Your task to perform on an android device: stop showing notifications on the lock screen Image 0: 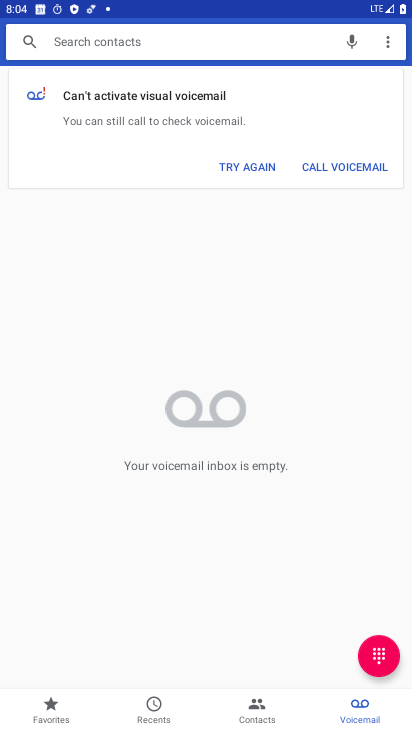
Step 0: press home button
Your task to perform on an android device: stop showing notifications on the lock screen Image 1: 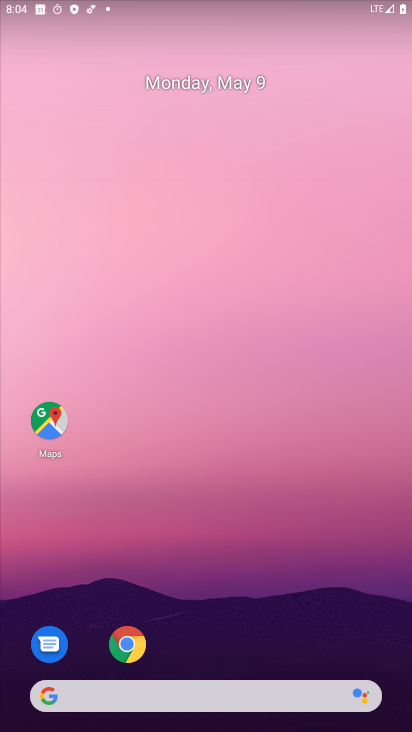
Step 1: drag from (193, 669) to (205, 327)
Your task to perform on an android device: stop showing notifications on the lock screen Image 2: 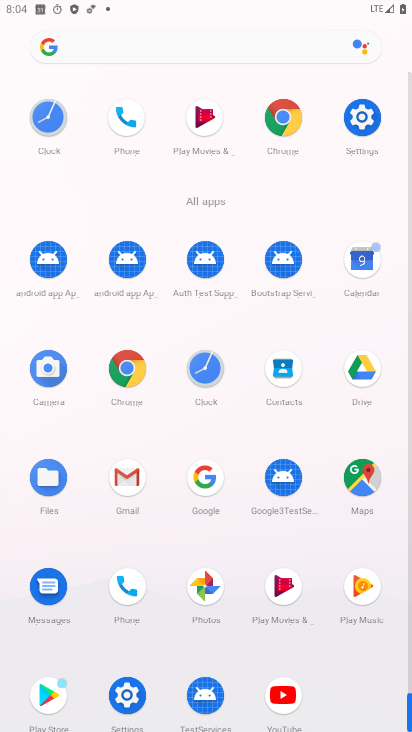
Step 2: click (130, 696)
Your task to perform on an android device: stop showing notifications on the lock screen Image 3: 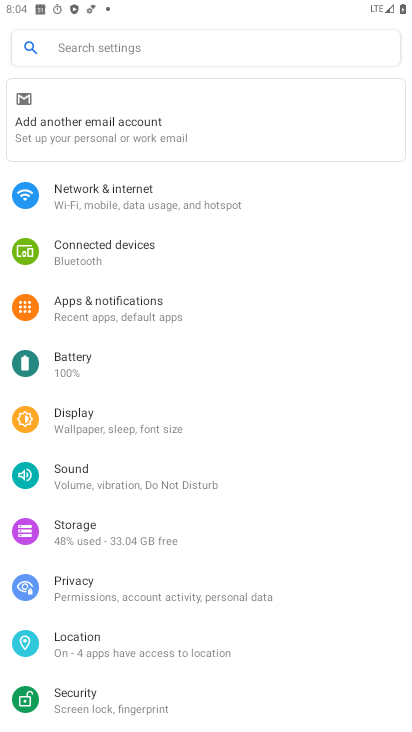
Step 3: click (152, 310)
Your task to perform on an android device: stop showing notifications on the lock screen Image 4: 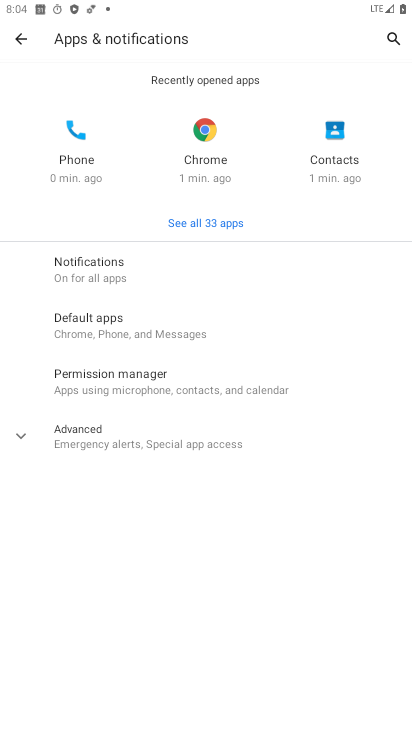
Step 4: click (99, 272)
Your task to perform on an android device: stop showing notifications on the lock screen Image 5: 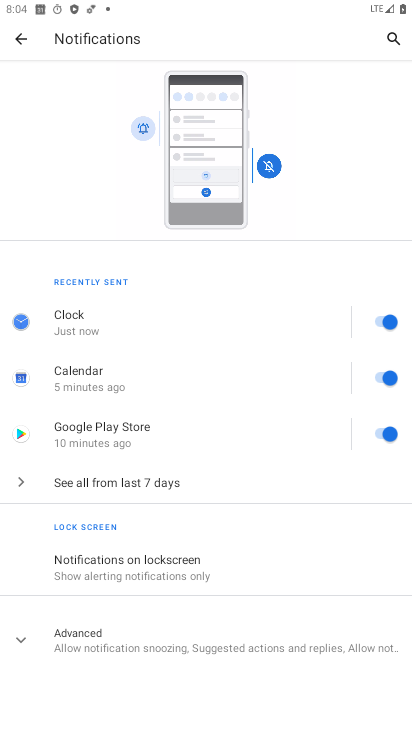
Step 5: click (121, 575)
Your task to perform on an android device: stop showing notifications on the lock screen Image 6: 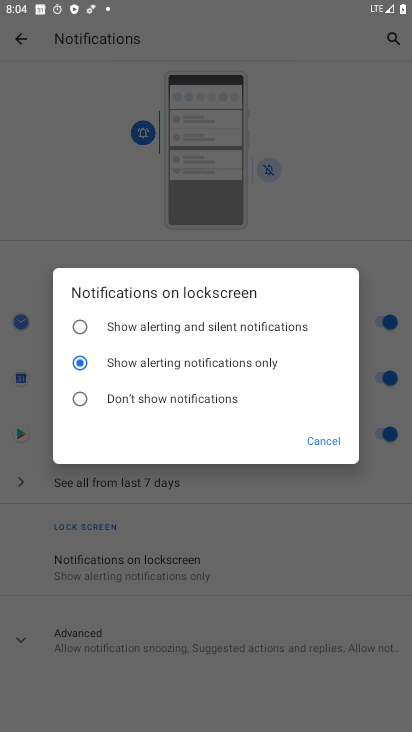
Step 6: click (170, 393)
Your task to perform on an android device: stop showing notifications on the lock screen Image 7: 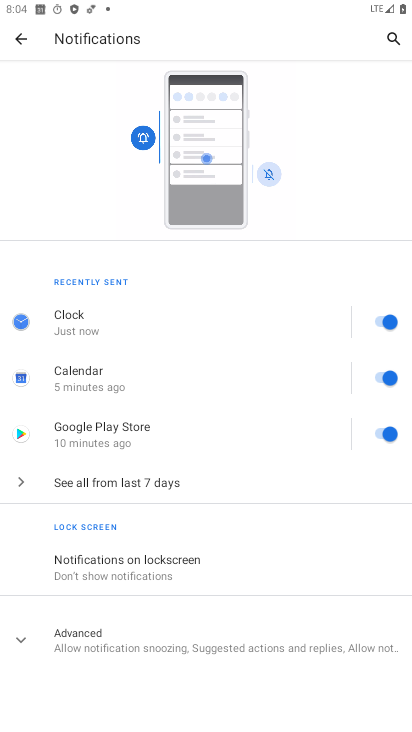
Step 7: task complete